Your task to perform on an android device: remove spam from my inbox in the gmail app Image 0: 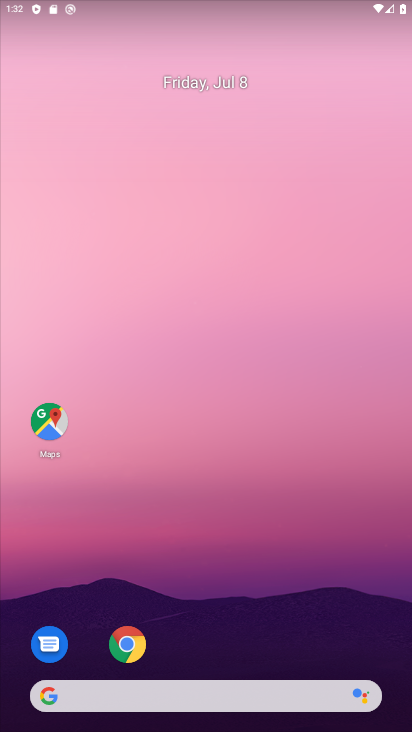
Step 0: drag from (218, 614) to (282, 160)
Your task to perform on an android device: remove spam from my inbox in the gmail app Image 1: 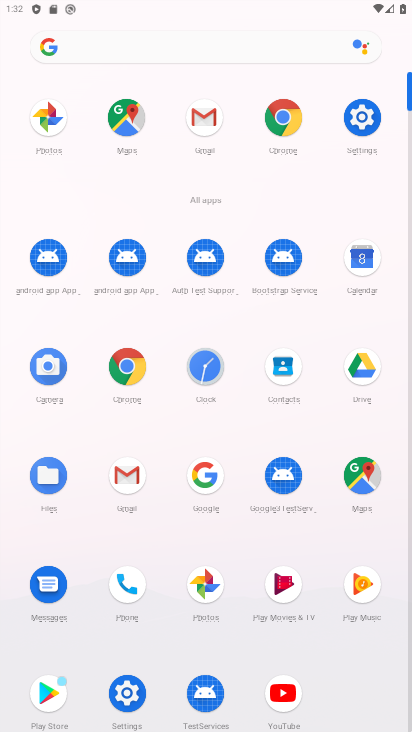
Step 1: click (204, 116)
Your task to perform on an android device: remove spam from my inbox in the gmail app Image 2: 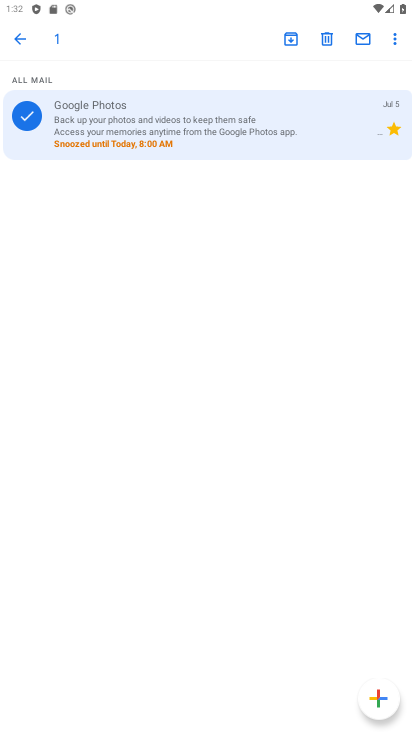
Step 2: press back button
Your task to perform on an android device: remove spam from my inbox in the gmail app Image 3: 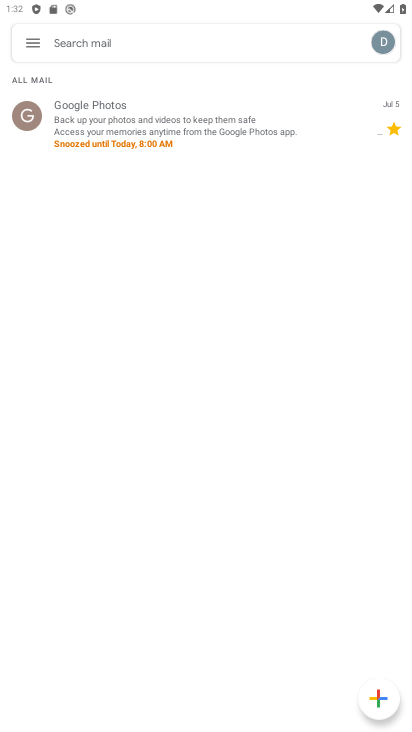
Step 3: click (35, 44)
Your task to perform on an android device: remove spam from my inbox in the gmail app Image 4: 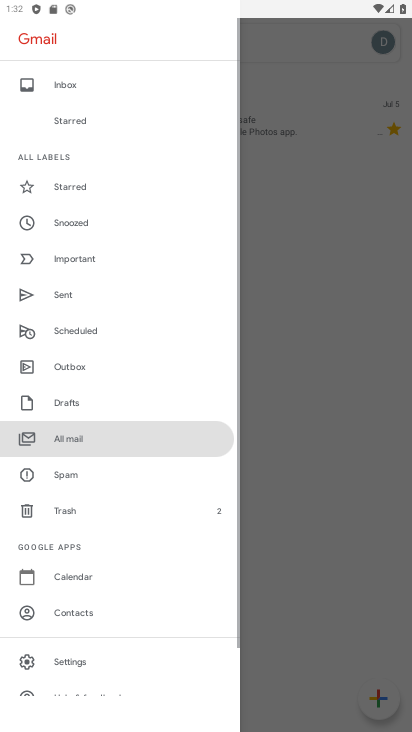
Step 4: click (60, 78)
Your task to perform on an android device: remove spam from my inbox in the gmail app Image 5: 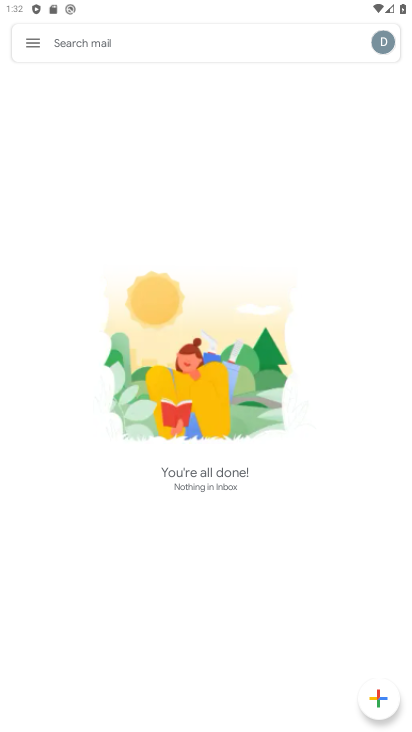
Step 5: task complete